Your task to perform on an android device: check battery use Image 0: 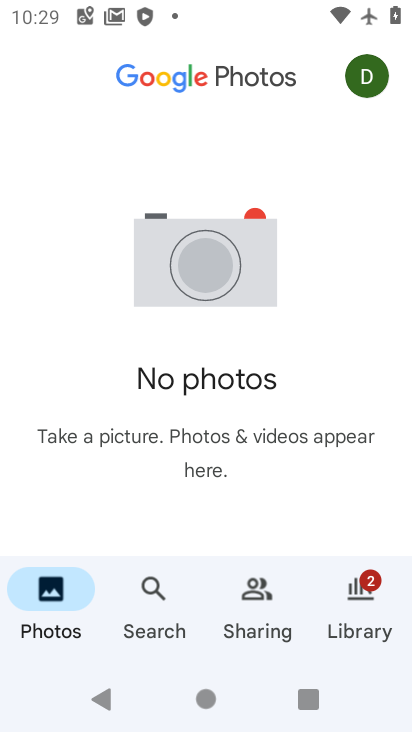
Step 0: press home button
Your task to perform on an android device: check battery use Image 1: 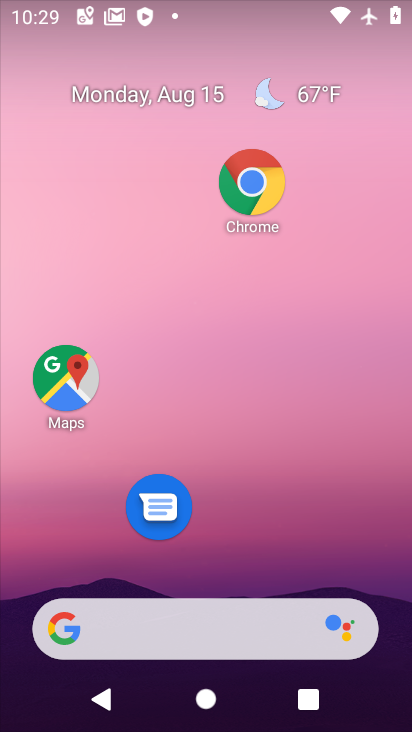
Step 1: drag from (288, 591) to (282, 73)
Your task to perform on an android device: check battery use Image 2: 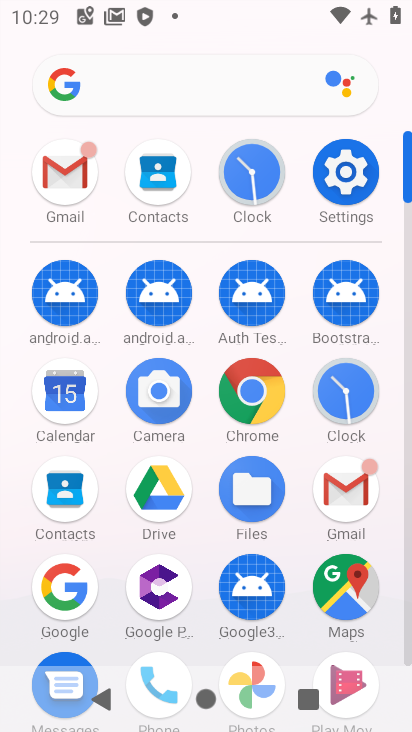
Step 2: click (349, 162)
Your task to perform on an android device: check battery use Image 3: 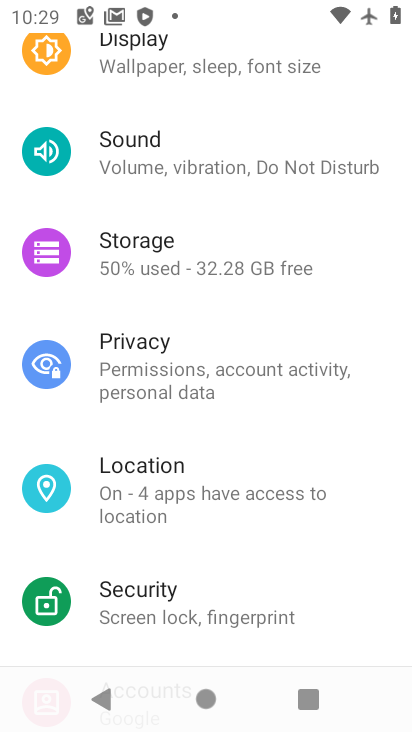
Step 3: task complete